Your task to perform on an android device: Go to internet settings Image 0: 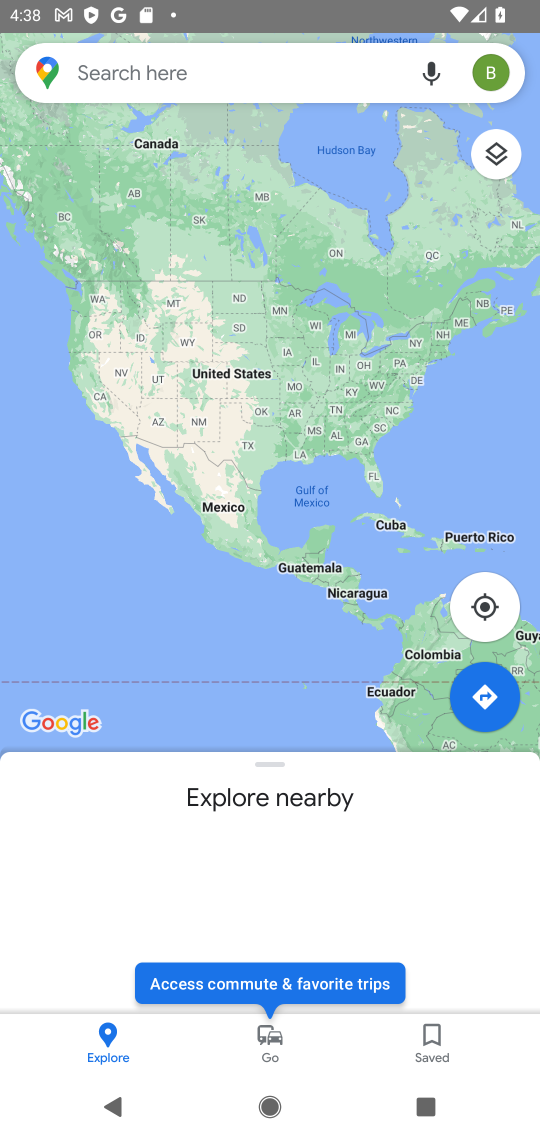
Step 0: press home button
Your task to perform on an android device: Go to internet settings Image 1: 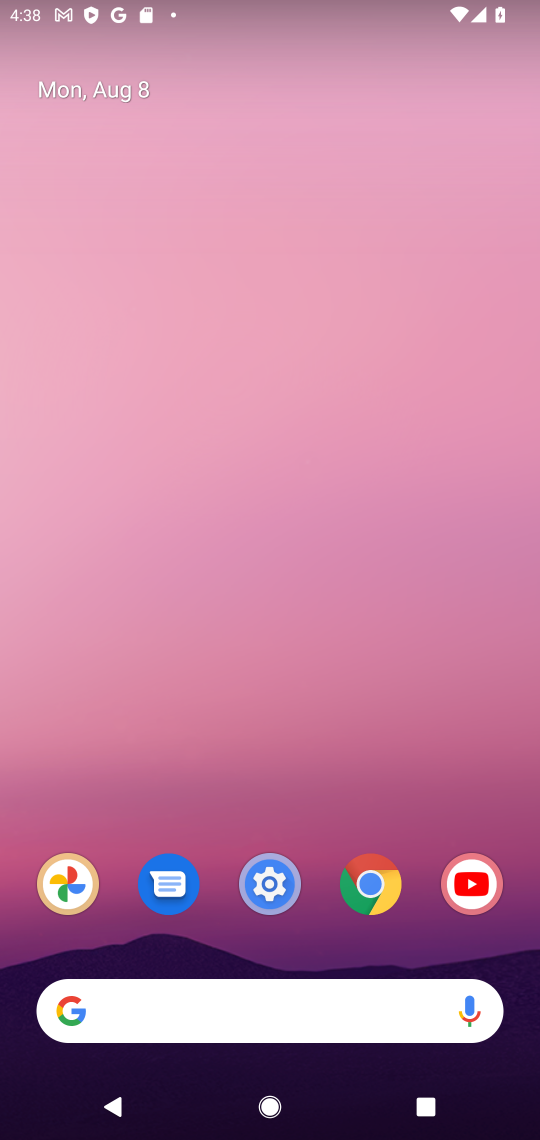
Step 1: click (261, 910)
Your task to perform on an android device: Go to internet settings Image 2: 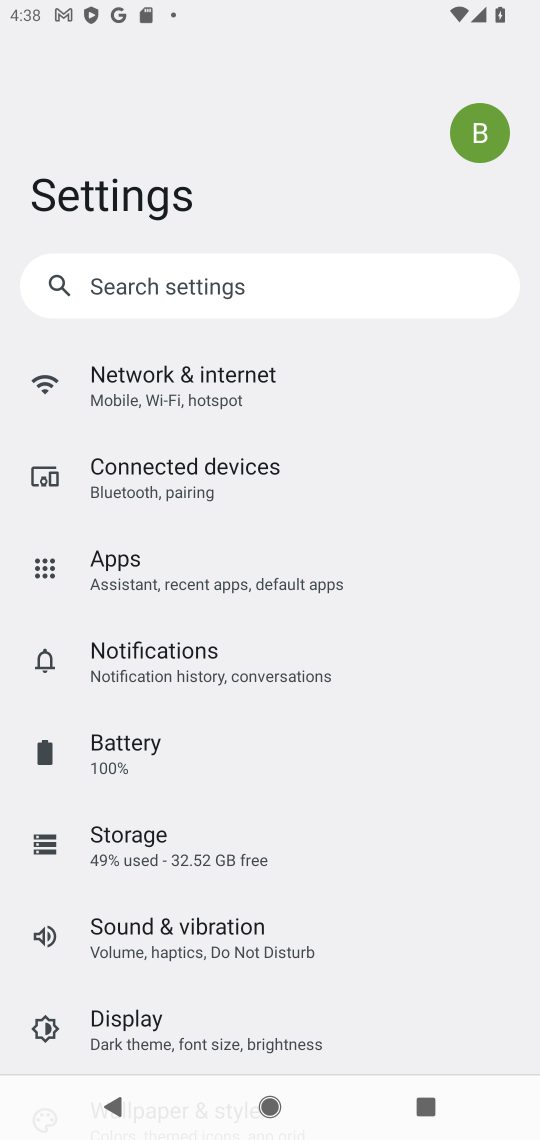
Step 2: click (184, 368)
Your task to perform on an android device: Go to internet settings Image 3: 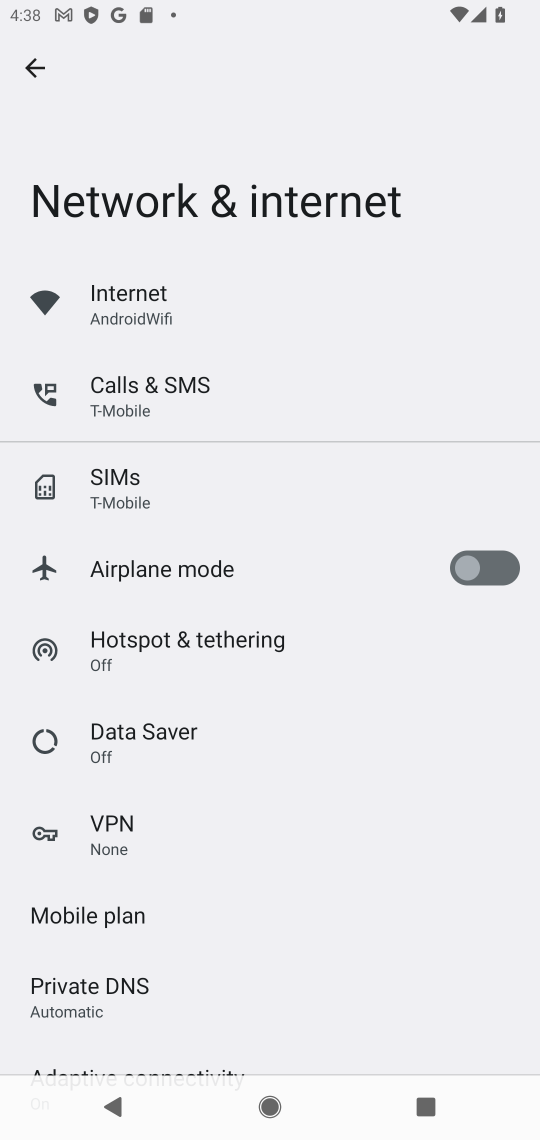
Step 3: task complete